Your task to perform on an android device: Open the web browser Image 0: 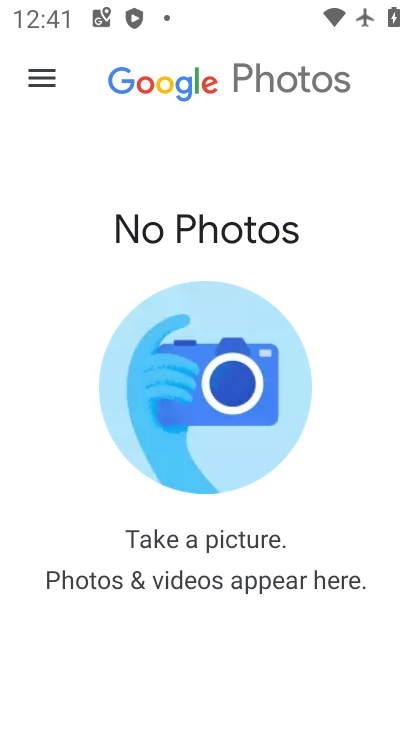
Step 0: drag from (263, 696) to (175, 266)
Your task to perform on an android device: Open the web browser Image 1: 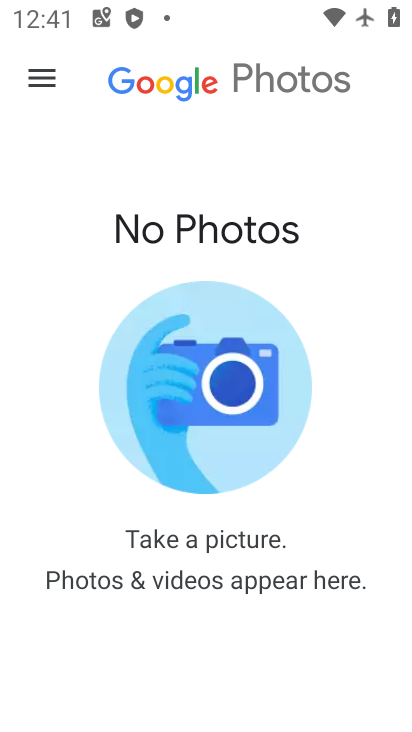
Step 1: press back button
Your task to perform on an android device: Open the web browser Image 2: 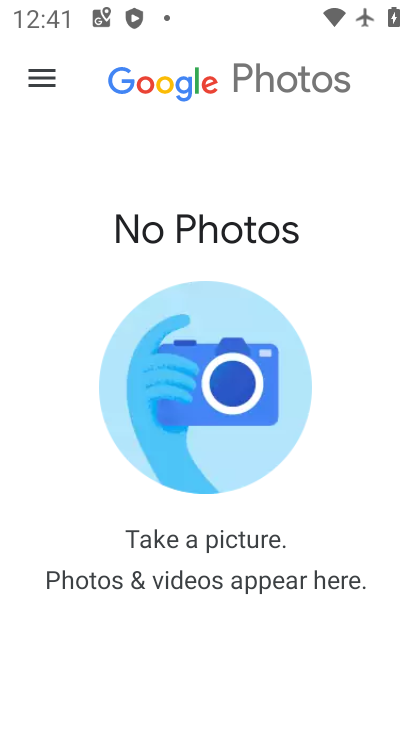
Step 2: press back button
Your task to perform on an android device: Open the web browser Image 3: 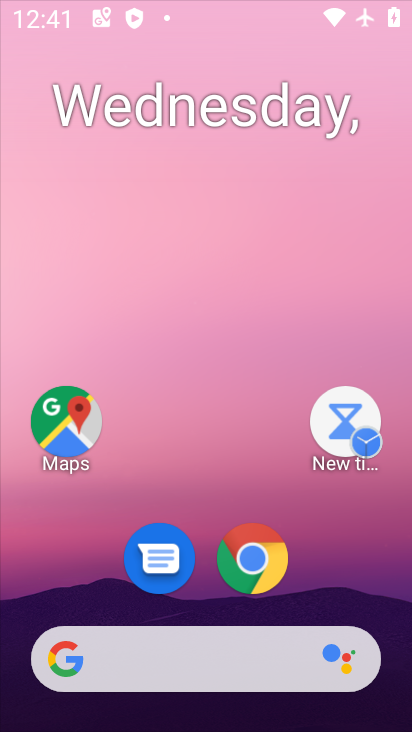
Step 3: press back button
Your task to perform on an android device: Open the web browser Image 4: 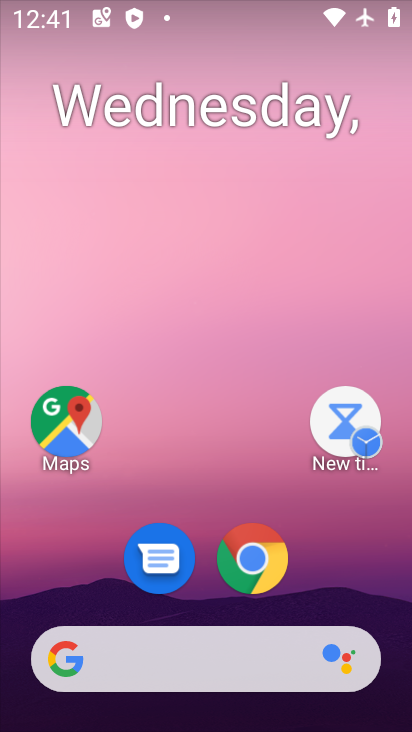
Step 4: drag from (164, 378) to (150, 194)
Your task to perform on an android device: Open the web browser Image 5: 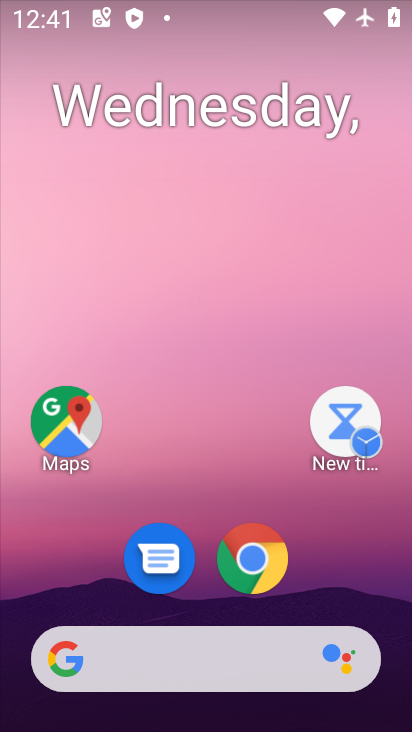
Step 5: drag from (213, 644) to (184, 176)
Your task to perform on an android device: Open the web browser Image 6: 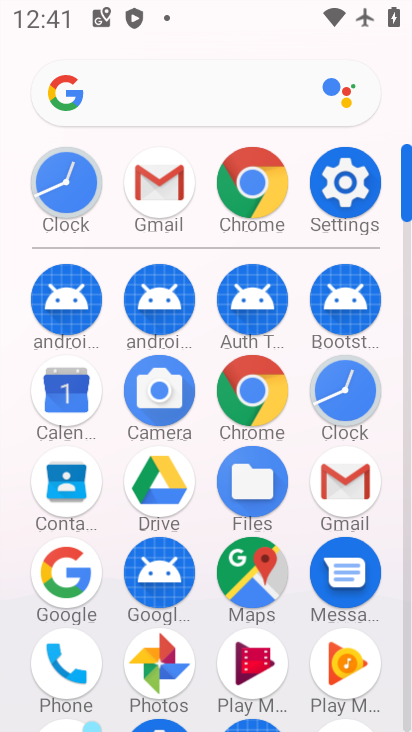
Step 6: click (246, 177)
Your task to perform on an android device: Open the web browser Image 7: 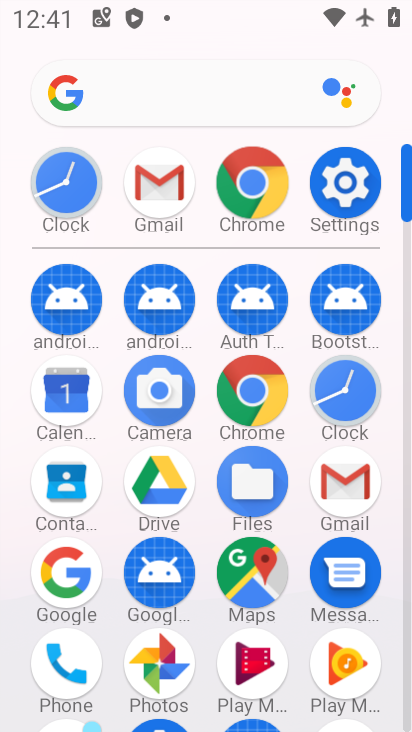
Step 7: click (247, 177)
Your task to perform on an android device: Open the web browser Image 8: 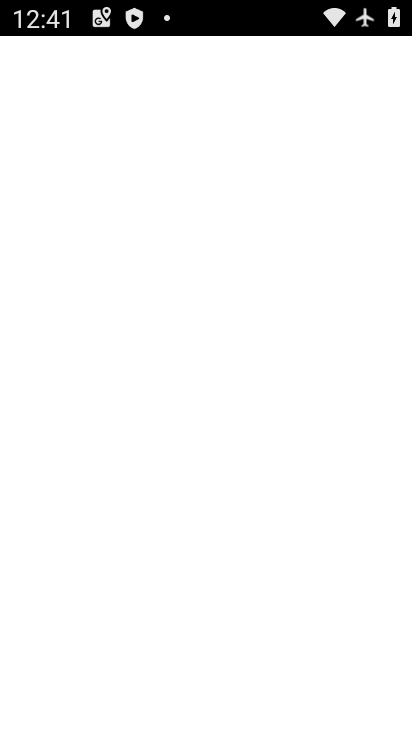
Step 8: click (247, 177)
Your task to perform on an android device: Open the web browser Image 9: 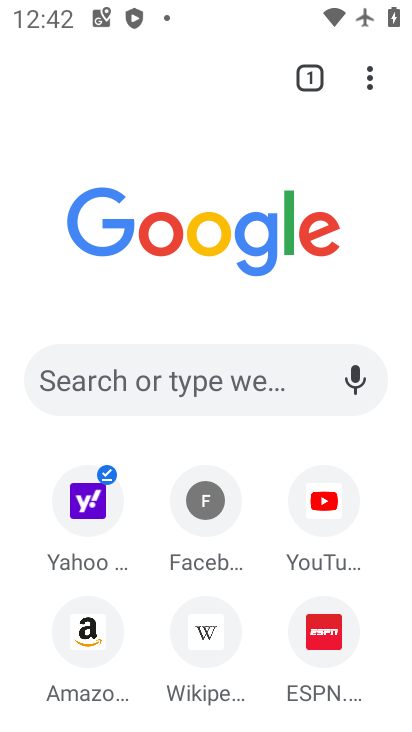
Step 9: press back button
Your task to perform on an android device: Open the web browser Image 10: 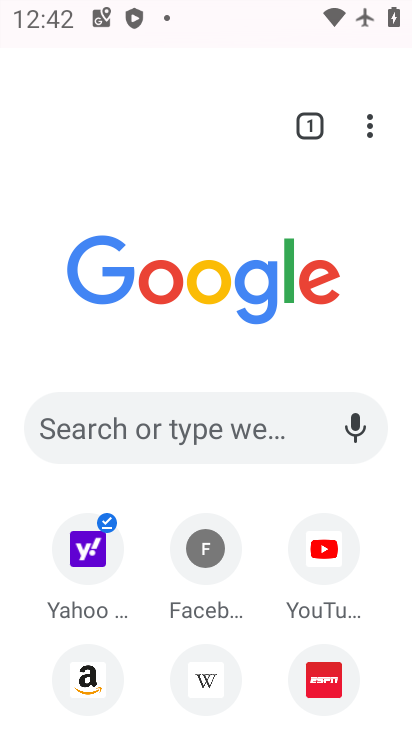
Step 10: press back button
Your task to perform on an android device: Open the web browser Image 11: 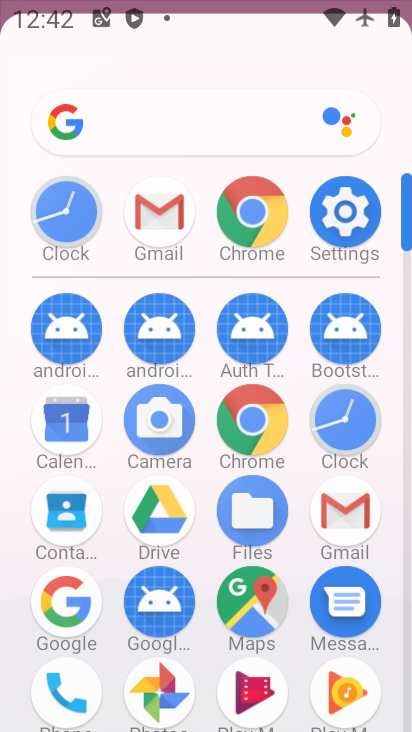
Step 11: press back button
Your task to perform on an android device: Open the web browser Image 12: 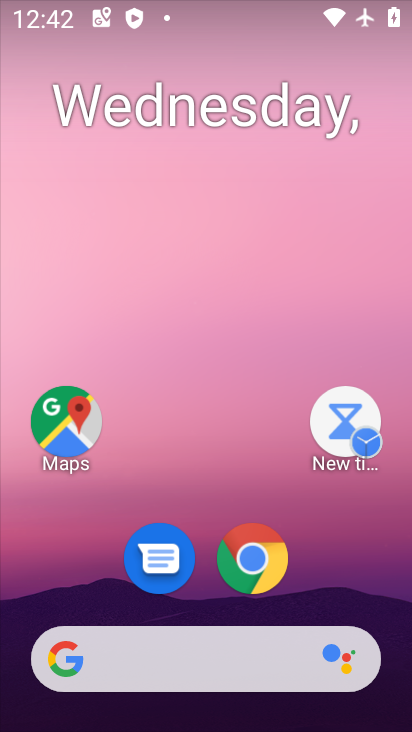
Step 12: drag from (205, 636) to (123, 195)
Your task to perform on an android device: Open the web browser Image 13: 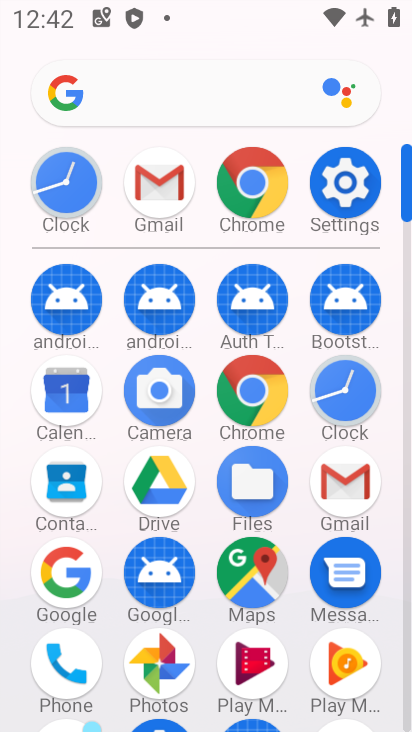
Step 13: click (255, 190)
Your task to perform on an android device: Open the web browser Image 14: 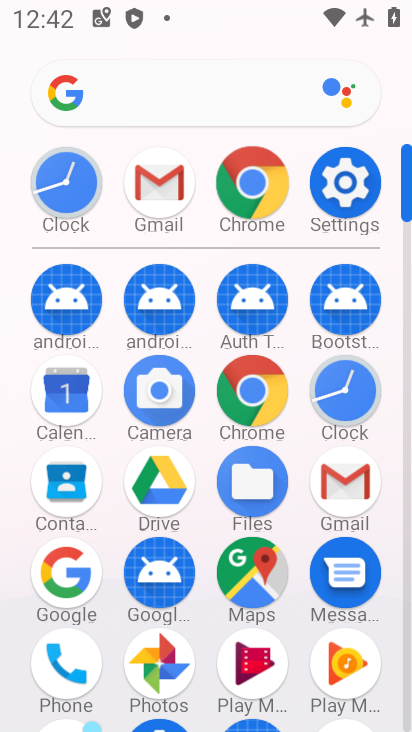
Step 14: click (255, 190)
Your task to perform on an android device: Open the web browser Image 15: 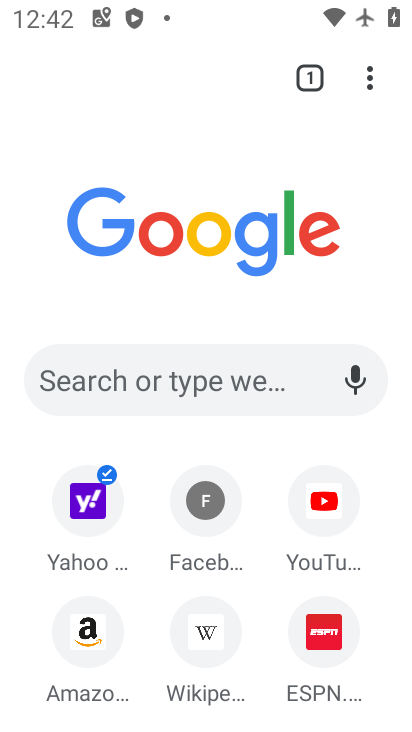
Step 15: click (52, 375)
Your task to perform on an android device: Open the web browser Image 16: 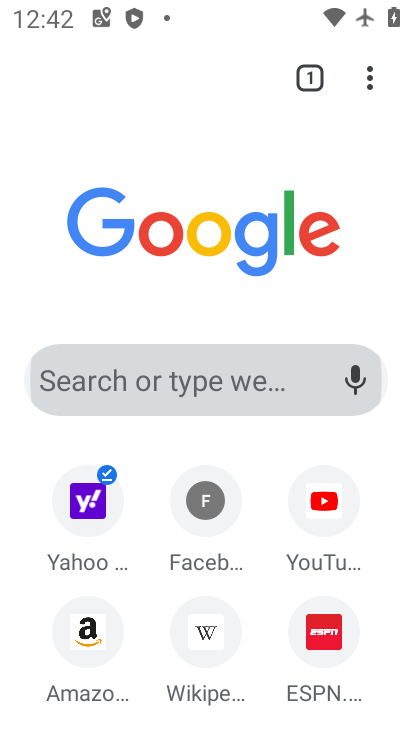
Step 16: click (59, 373)
Your task to perform on an android device: Open the web browser Image 17: 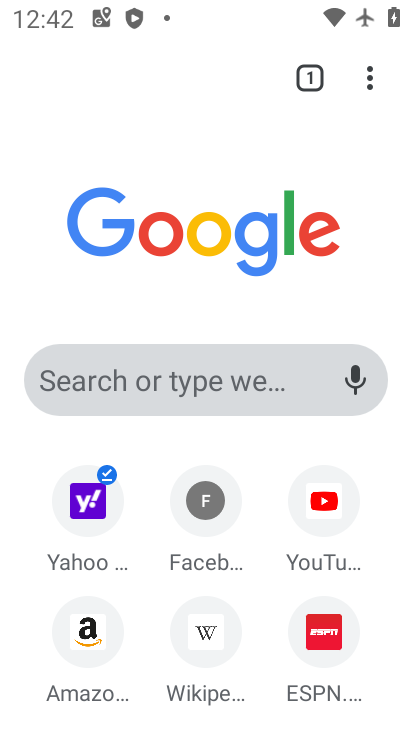
Step 17: click (59, 374)
Your task to perform on an android device: Open the web browser Image 18: 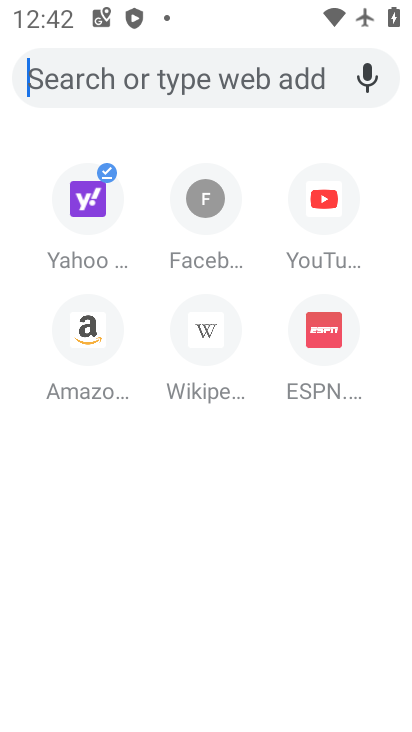
Step 18: click (59, 374)
Your task to perform on an android device: Open the web browser Image 19: 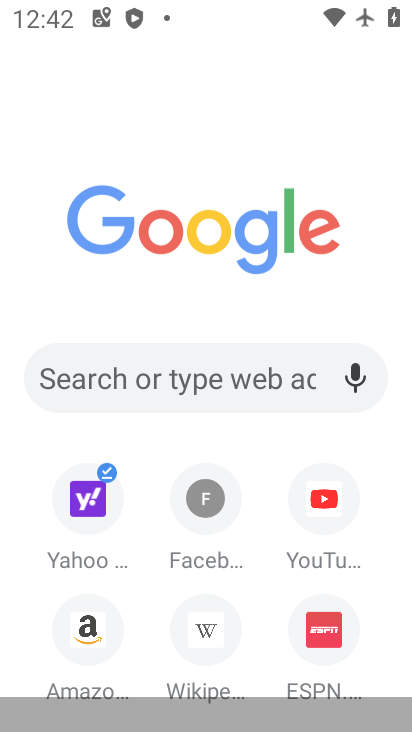
Step 19: click (59, 374)
Your task to perform on an android device: Open the web browser Image 20: 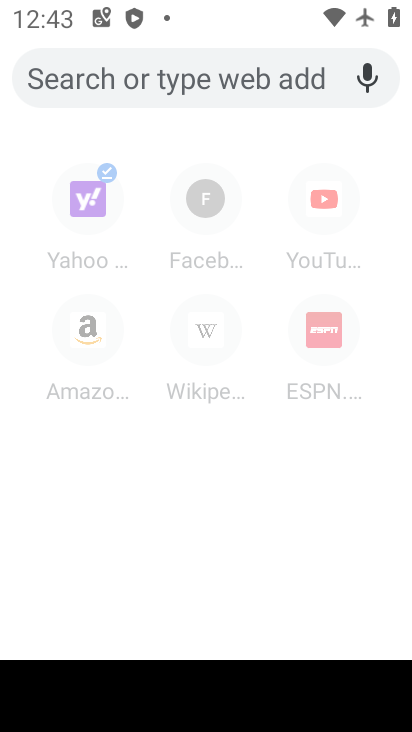
Step 20: press back button
Your task to perform on an android device: Open the web browser Image 21: 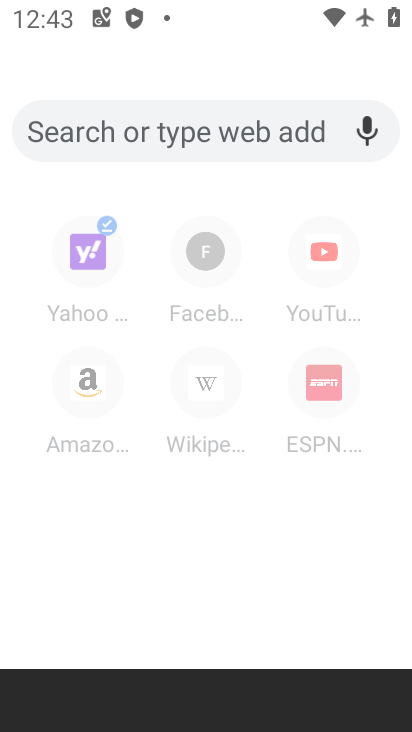
Step 21: press back button
Your task to perform on an android device: Open the web browser Image 22: 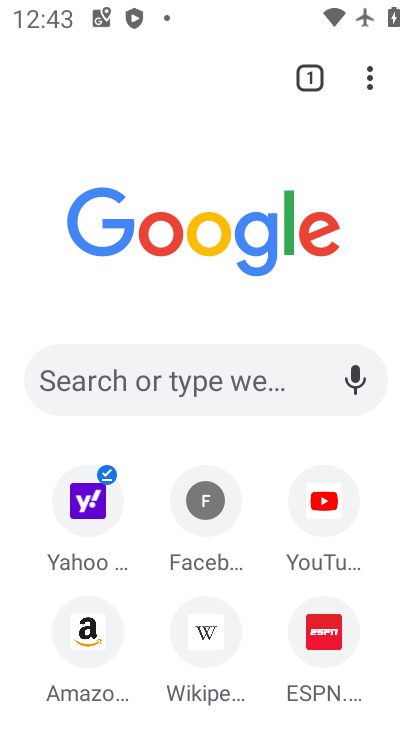
Step 22: press back button
Your task to perform on an android device: Open the web browser Image 23: 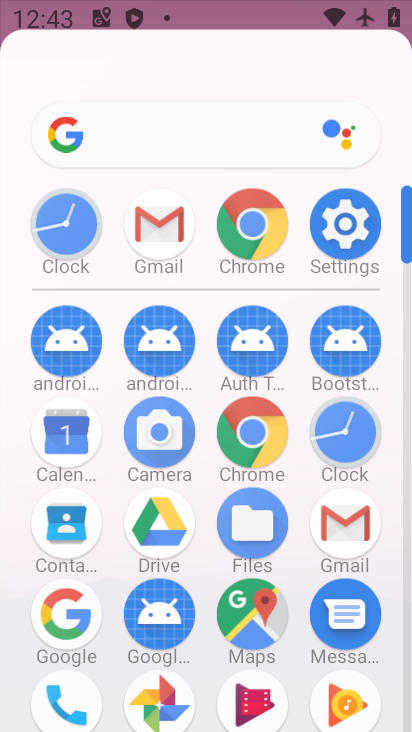
Step 23: press back button
Your task to perform on an android device: Open the web browser Image 24: 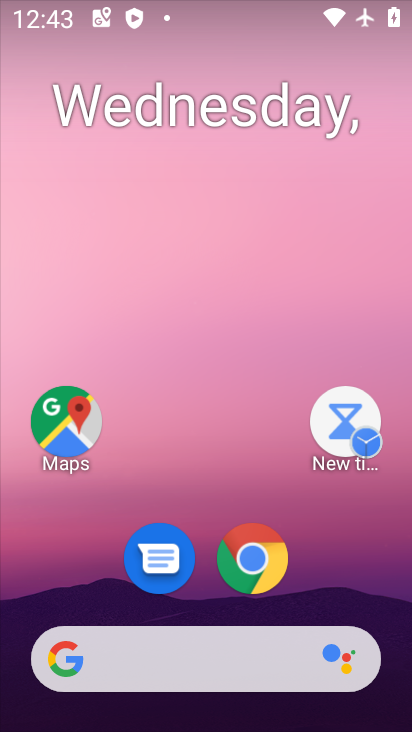
Step 24: drag from (300, 457) to (199, 33)
Your task to perform on an android device: Open the web browser Image 25: 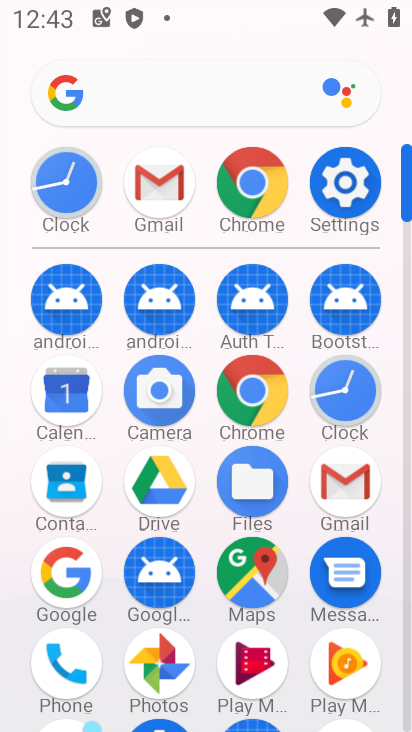
Step 25: click (247, 194)
Your task to perform on an android device: Open the web browser Image 26: 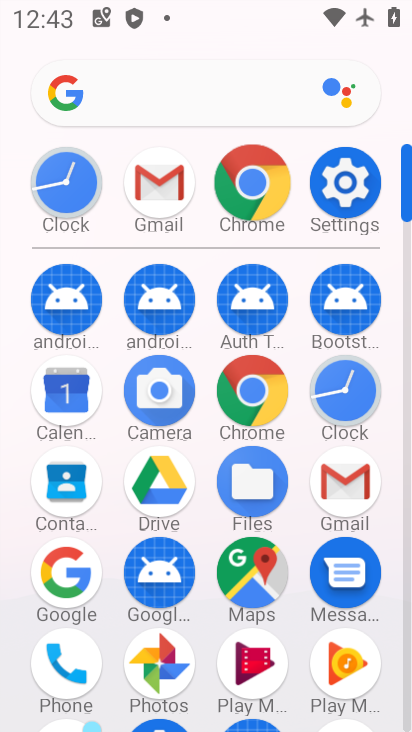
Step 26: click (255, 187)
Your task to perform on an android device: Open the web browser Image 27: 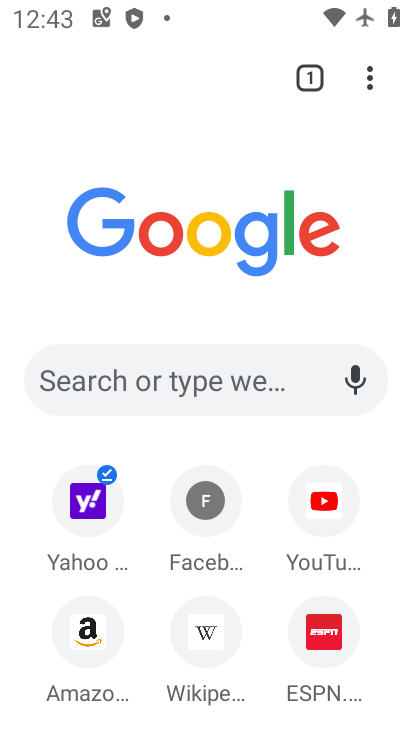
Step 27: drag from (368, 90) to (66, 163)
Your task to perform on an android device: Open the web browser Image 28: 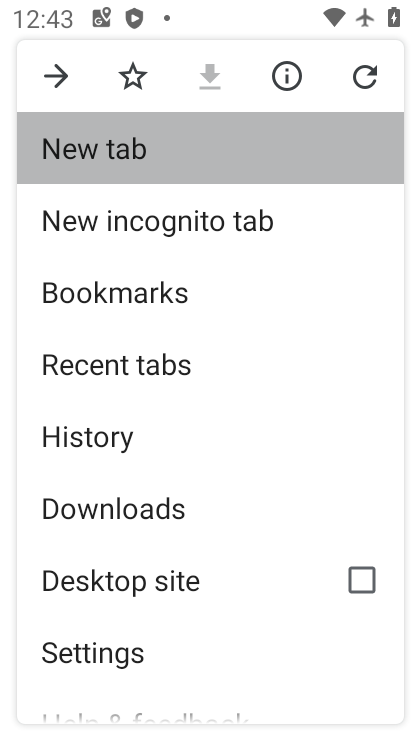
Step 28: click (66, 162)
Your task to perform on an android device: Open the web browser Image 29: 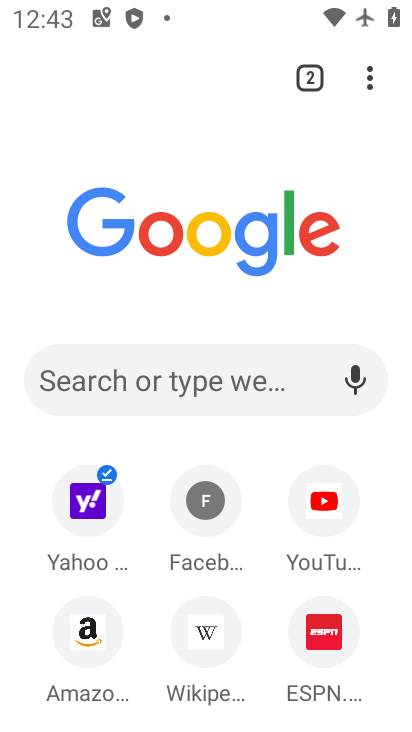
Step 29: click (73, 153)
Your task to perform on an android device: Open the web browser Image 30: 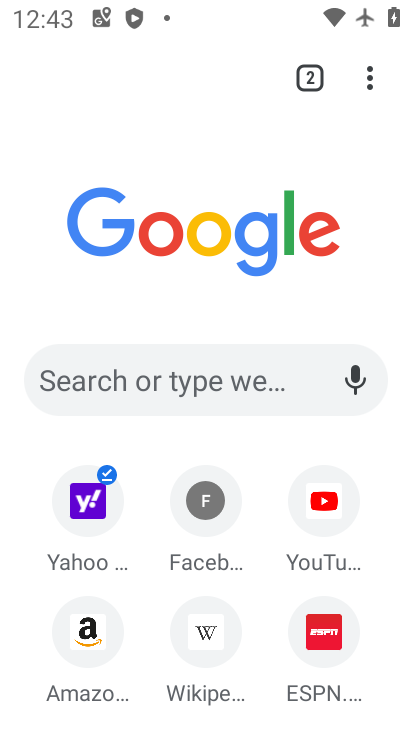
Step 30: task complete